Your task to perform on an android device: Search for "logitech g502" on newegg, select the first entry, and add it to the cart. Image 0: 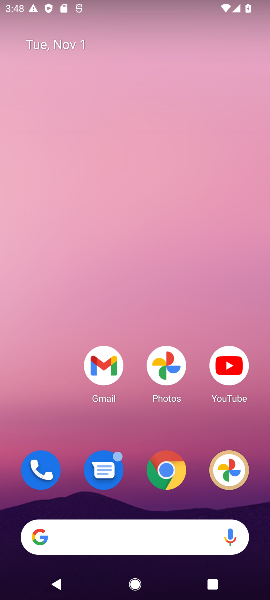
Step 0: click (171, 476)
Your task to perform on an android device: Search for "logitech g502" on newegg, select the first entry, and add it to the cart. Image 1: 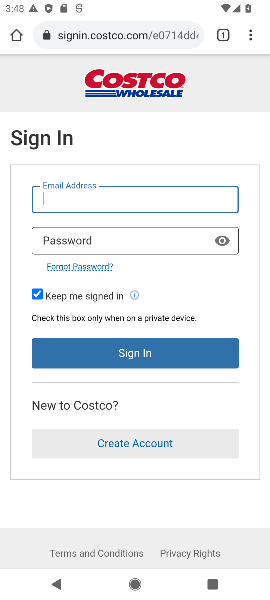
Step 1: click (92, 33)
Your task to perform on an android device: Search for "logitech g502" on newegg, select the first entry, and add it to the cart. Image 2: 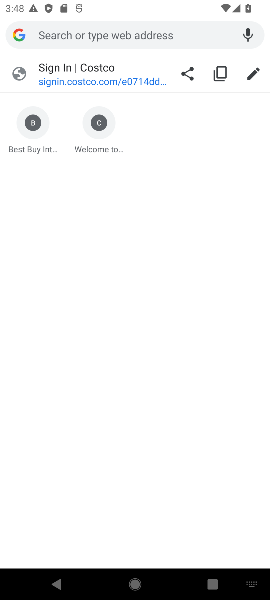
Step 2: type "newegg"
Your task to perform on an android device: Search for "logitech g502" on newegg, select the first entry, and add it to the cart. Image 3: 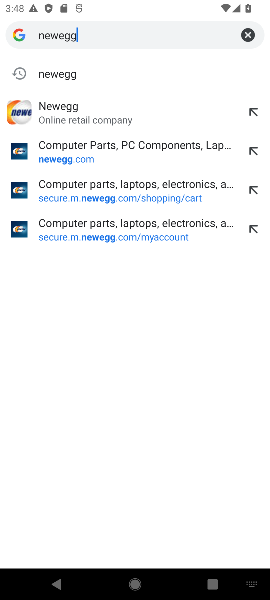
Step 3: press enter
Your task to perform on an android device: Search for "logitech g502" on newegg, select the first entry, and add it to the cart. Image 4: 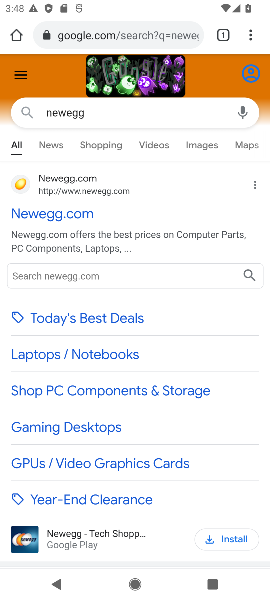
Step 4: click (69, 211)
Your task to perform on an android device: Search for "logitech g502" on newegg, select the first entry, and add it to the cart. Image 5: 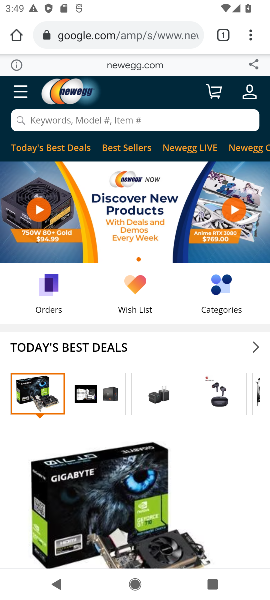
Step 5: click (83, 120)
Your task to perform on an android device: Search for "logitech g502" on newegg, select the first entry, and add it to the cart. Image 6: 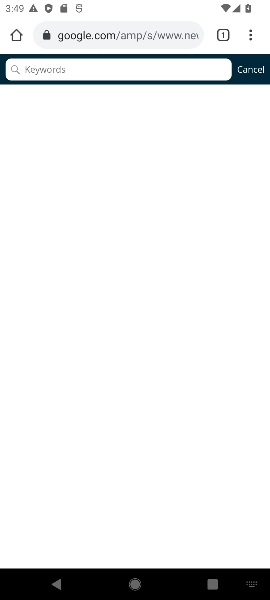
Step 6: type "logitech g502"
Your task to perform on an android device: Search for "logitech g502" on newegg, select the first entry, and add it to the cart. Image 7: 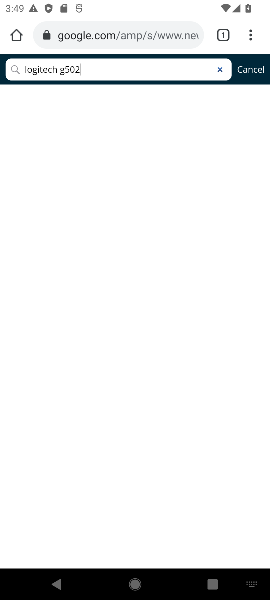
Step 7: press enter
Your task to perform on an android device: Search for "logitech g502" on newegg, select the first entry, and add it to the cart. Image 8: 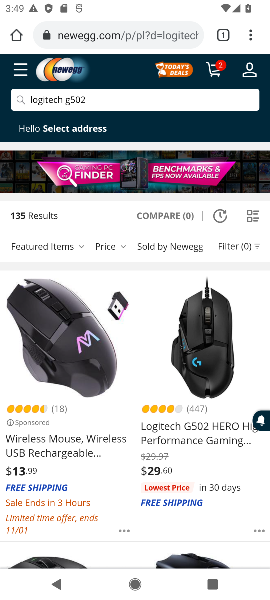
Step 8: click (102, 334)
Your task to perform on an android device: Search for "logitech g502" on newegg, select the first entry, and add it to the cart. Image 9: 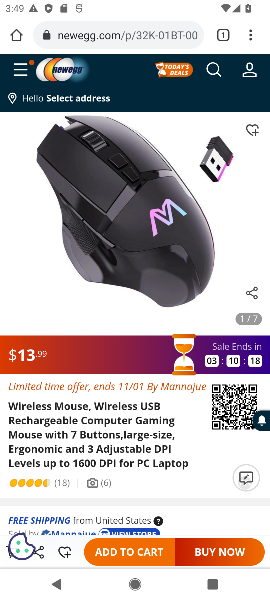
Step 9: click (139, 554)
Your task to perform on an android device: Search for "logitech g502" on newegg, select the first entry, and add it to the cart. Image 10: 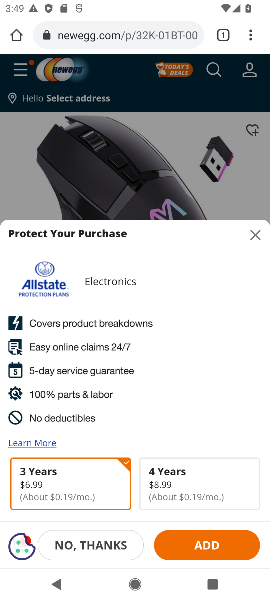
Step 10: click (100, 541)
Your task to perform on an android device: Search for "logitech g502" on newegg, select the first entry, and add it to the cart. Image 11: 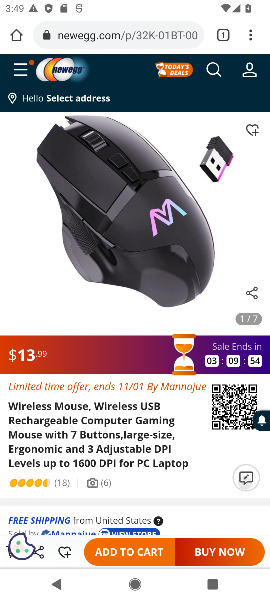
Step 11: task complete